Your task to perform on an android device: change alarm snooze length Image 0: 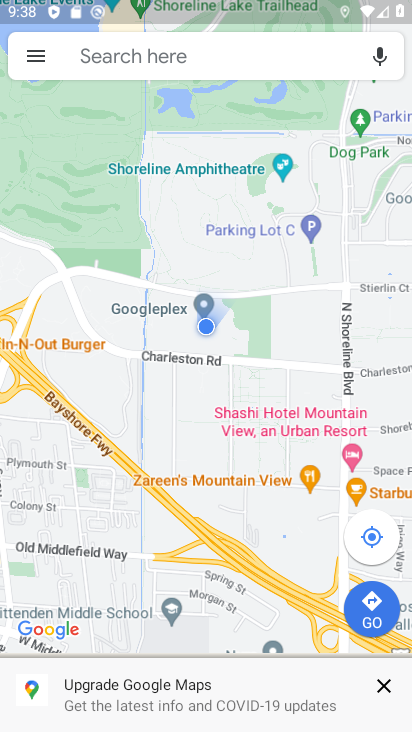
Step 0: press home button
Your task to perform on an android device: change alarm snooze length Image 1: 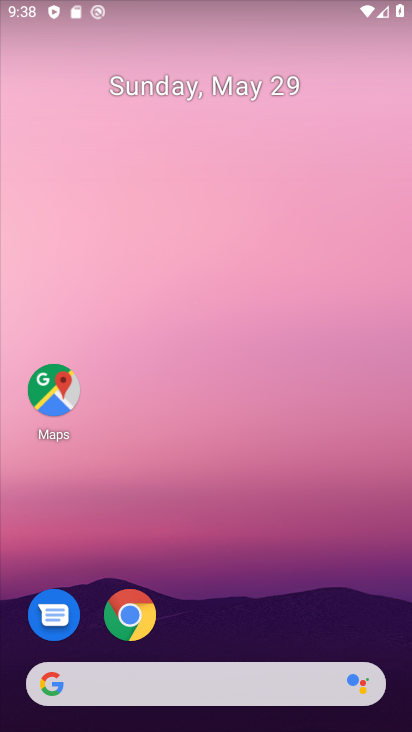
Step 1: drag from (225, 657) to (154, 16)
Your task to perform on an android device: change alarm snooze length Image 2: 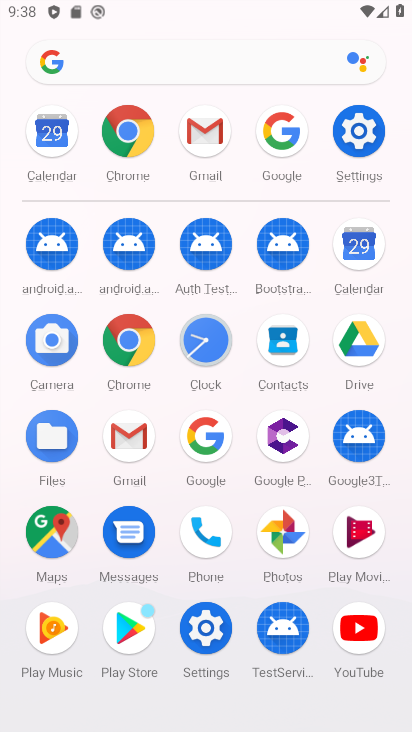
Step 2: click (202, 347)
Your task to perform on an android device: change alarm snooze length Image 3: 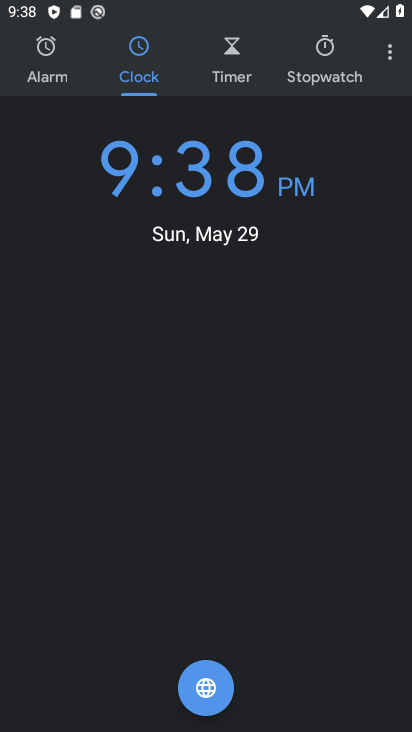
Step 3: click (383, 53)
Your task to perform on an android device: change alarm snooze length Image 4: 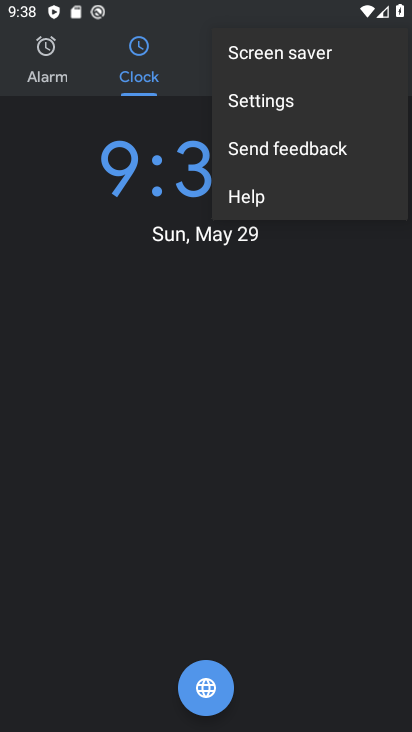
Step 4: click (268, 108)
Your task to perform on an android device: change alarm snooze length Image 5: 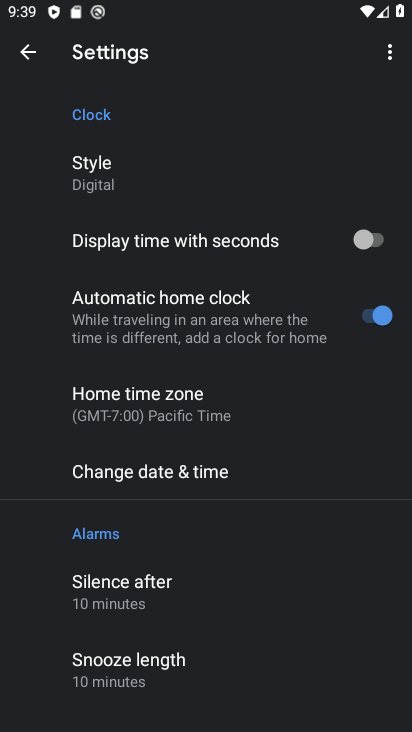
Step 5: click (137, 665)
Your task to perform on an android device: change alarm snooze length Image 6: 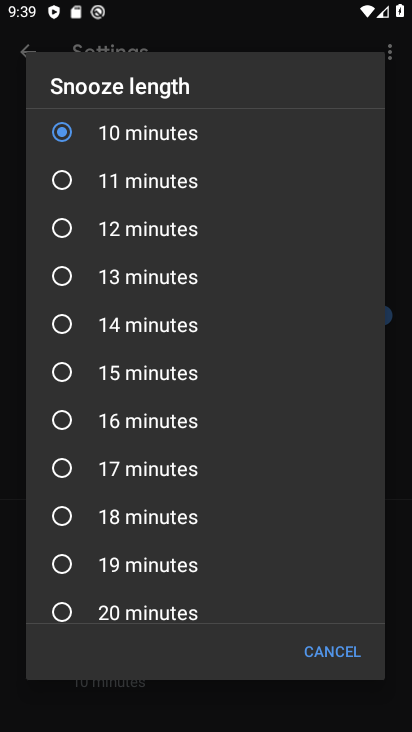
Step 6: click (101, 176)
Your task to perform on an android device: change alarm snooze length Image 7: 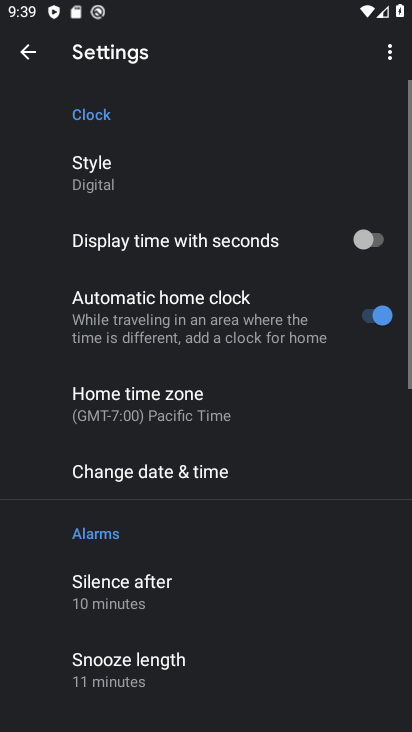
Step 7: task complete